Your task to perform on an android device: turn off location history Image 0: 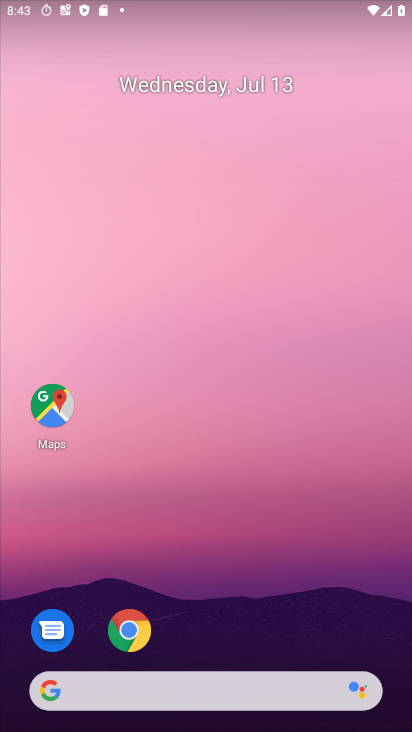
Step 0: drag from (180, 609) to (203, 111)
Your task to perform on an android device: turn off location history Image 1: 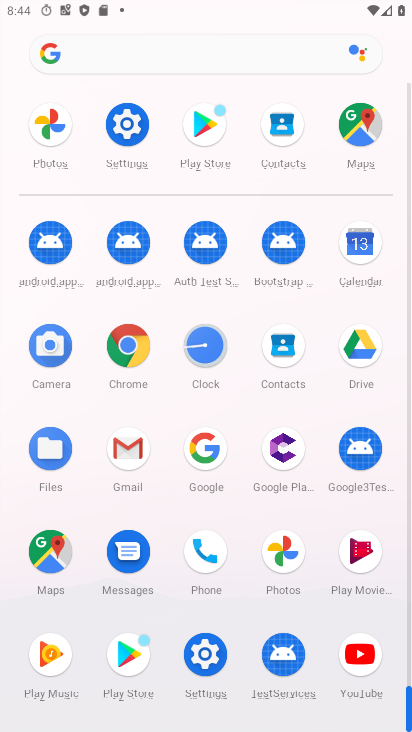
Step 1: click (196, 659)
Your task to perform on an android device: turn off location history Image 2: 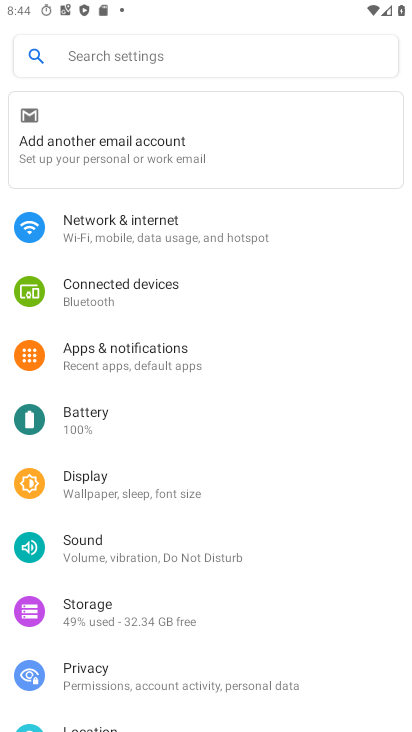
Step 2: drag from (178, 627) to (243, 240)
Your task to perform on an android device: turn off location history Image 3: 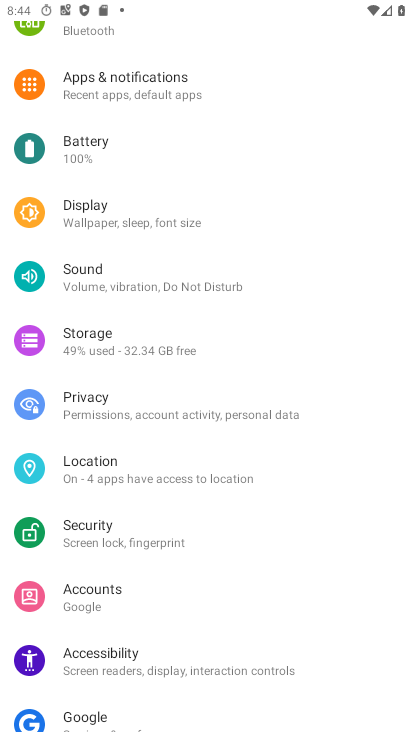
Step 3: click (111, 472)
Your task to perform on an android device: turn off location history Image 4: 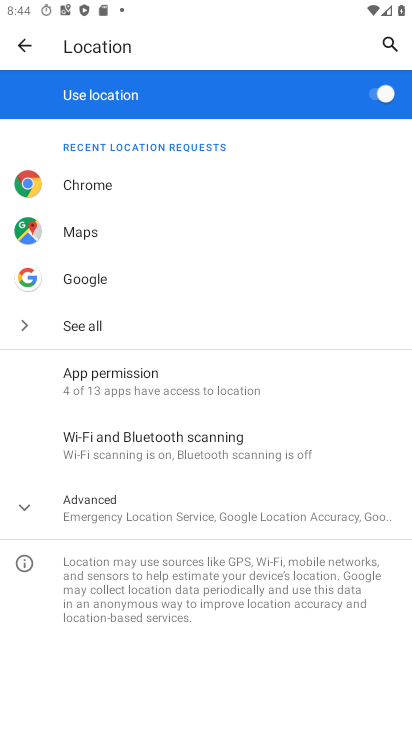
Step 4: click (108, 519)
Your task to perform on an android device: turn off location history Image 5: 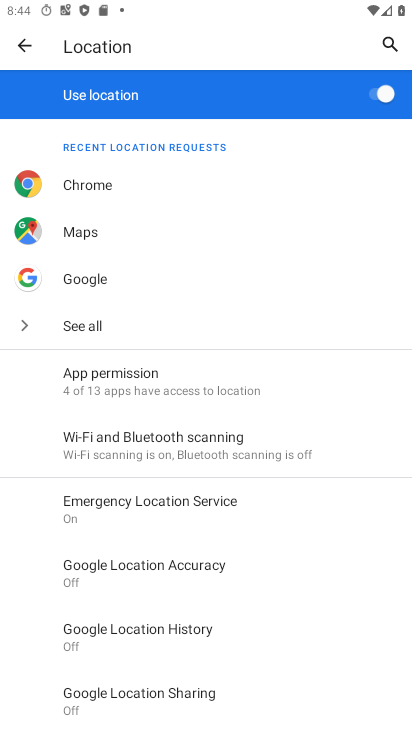
Step 5: click (169, 621)
Your task to perform on an android device: turn off location history Image 6: 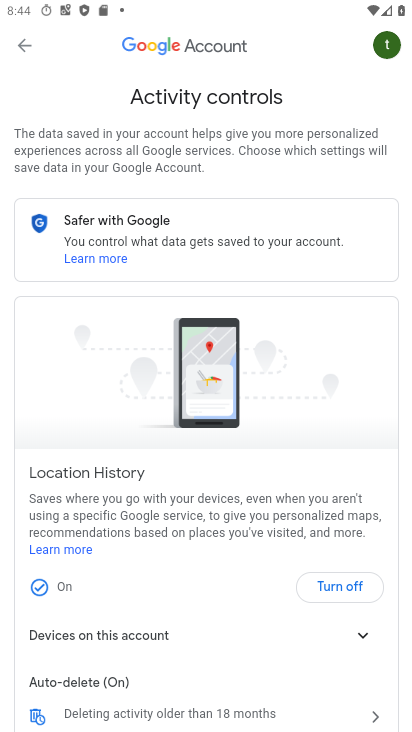
Step 6: drag from (203, 653) to (248, 390)
Your task to perform on an android device: turn off location history Image 7: 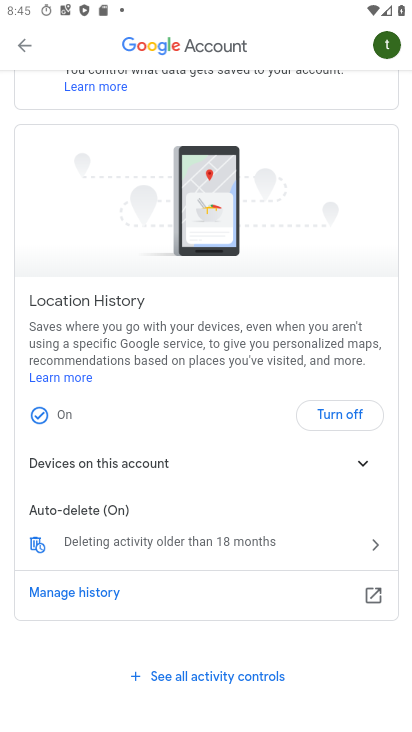
Step 7: click (352, 415)
Your task to perform on an android device: turn off location history Image 8: 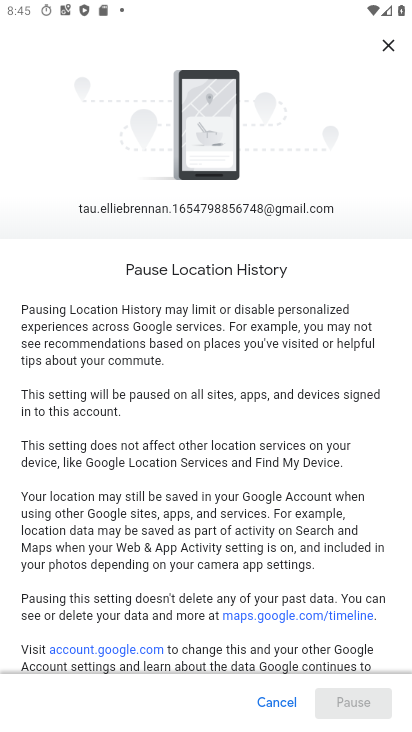
Step 8: drag from (225, 615) to (353, 52)
Your task to perform on an android device: turn off location history Image 9: 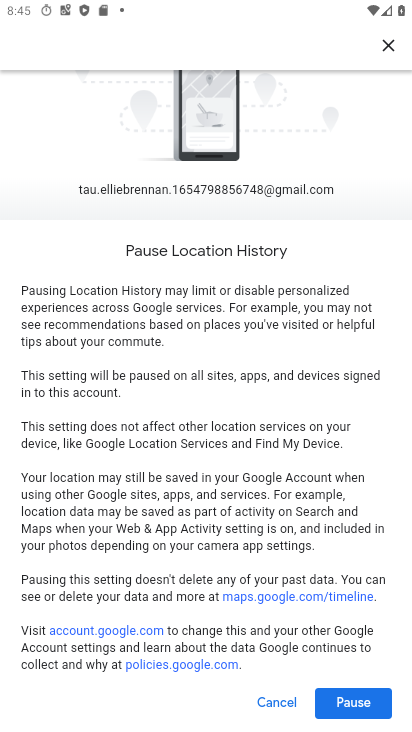
Step 9: click (330, 697)
Your task to perform on an android device: turn off location history Image 10: 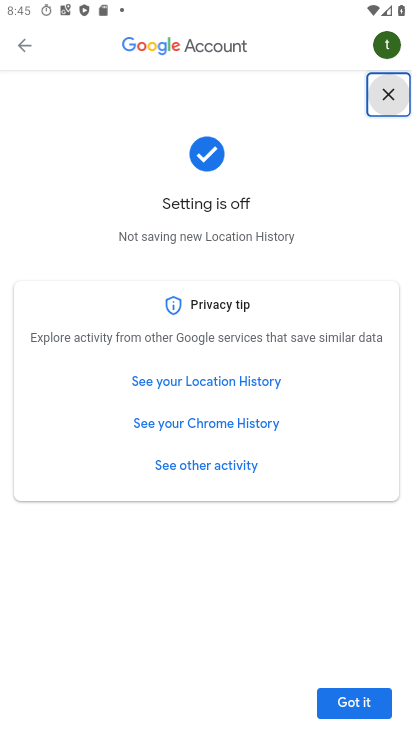
Step 10: click (350, 716)
Your task to perform on an android device: turn off location history Image 11: 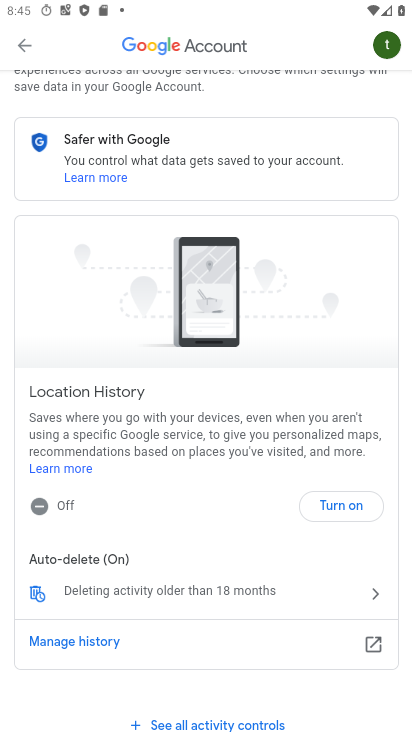
Step 11: task complete